Your task to perform on an android device: uninstall "McDonald's" Image 0: 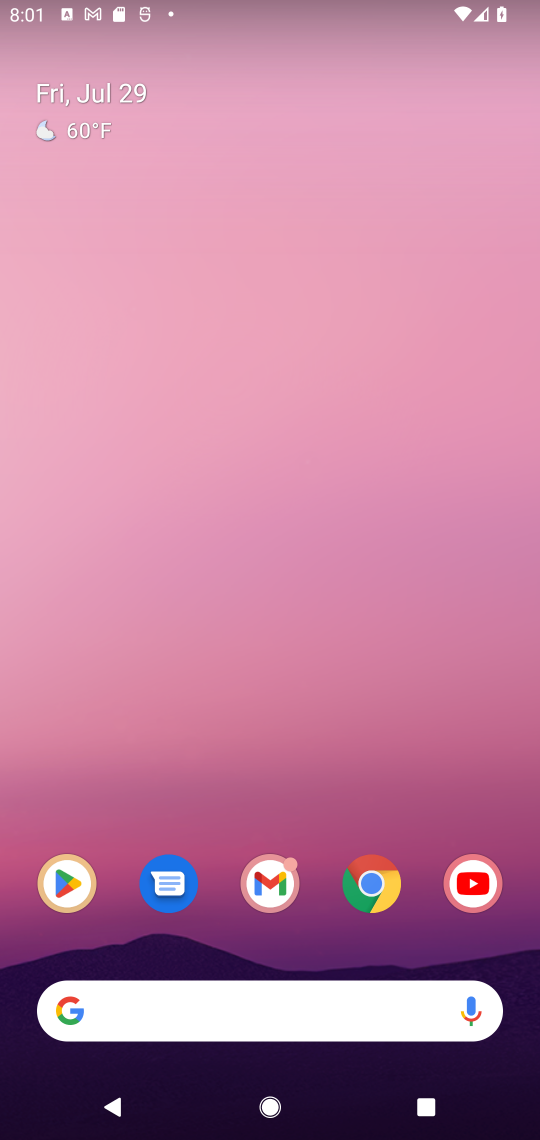
Step 0: click (68, 887)
Your task to perform on an android device: uninstall "McDonald's" Image 1: 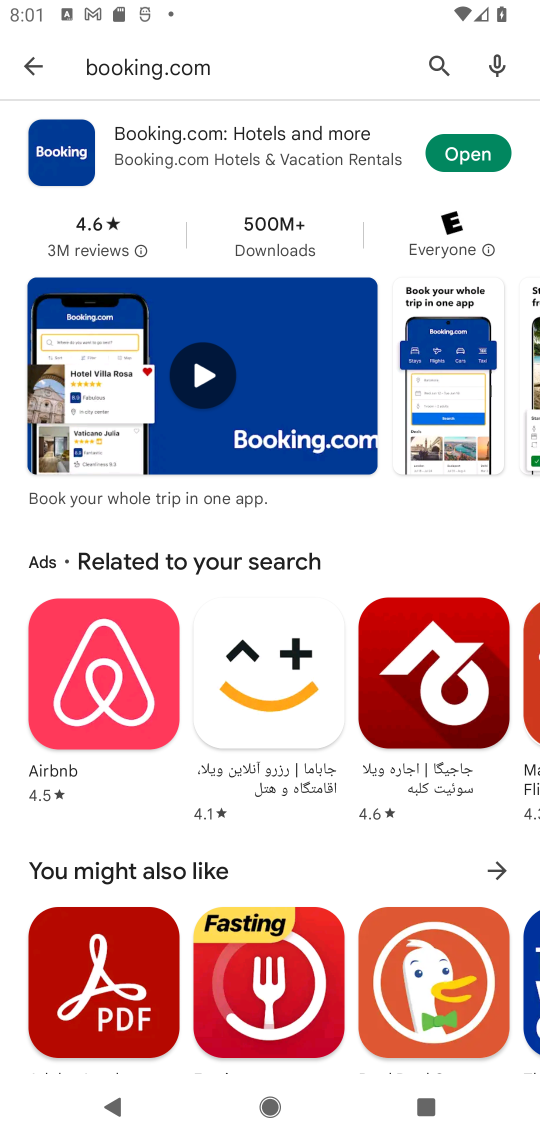
Step 1: click (455, 60)
Your task to perform on an android device: uninstall "McDonald's" Image 2: 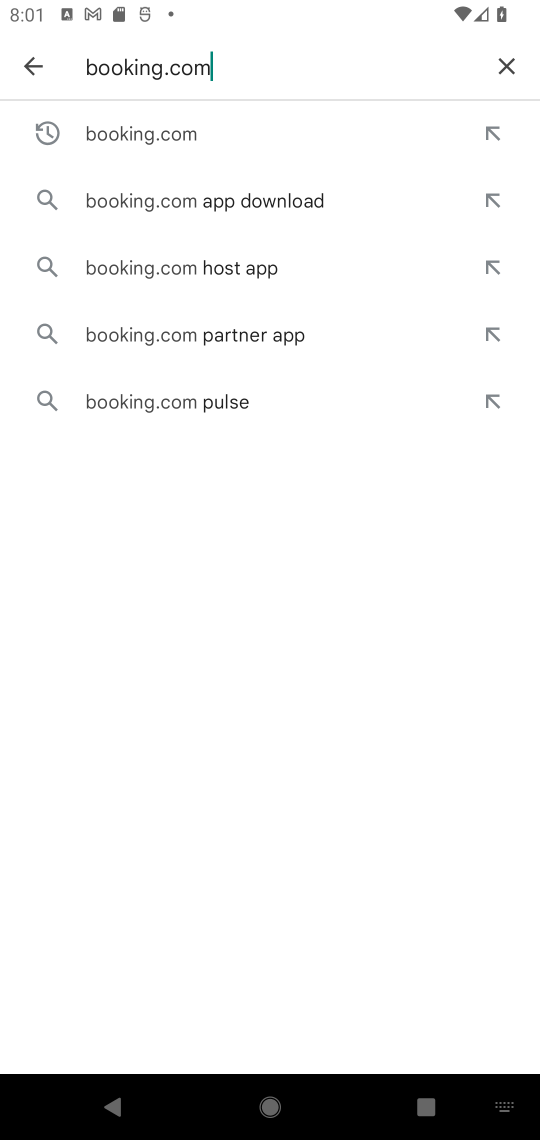
Step 2: click (522, 53)
Your task to perform on an android device: uninstall "McDonald's" Image 3: 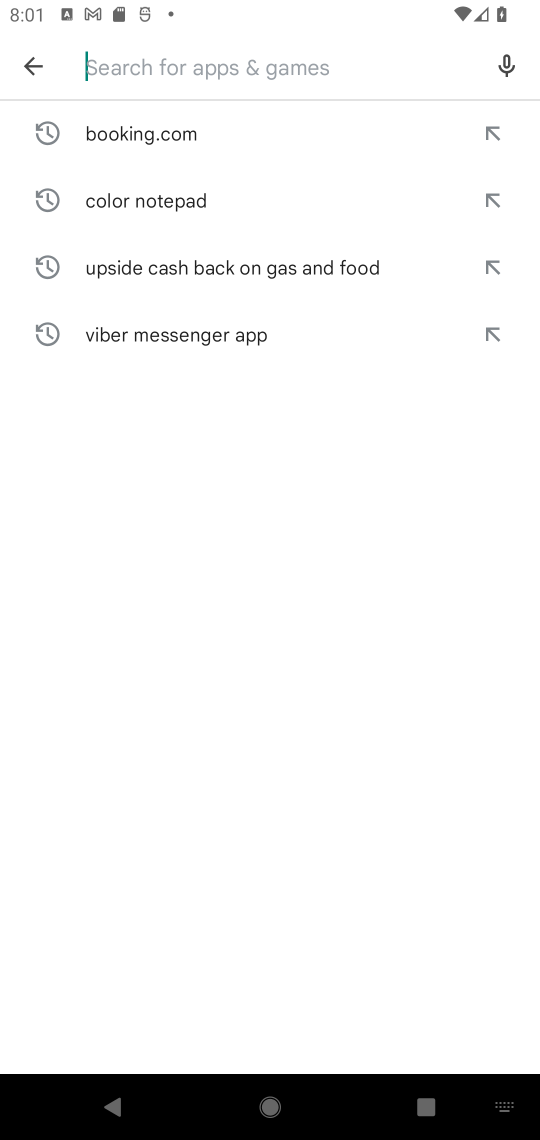
Step 3: click (158, 65)
Your task to perform on an android device: uninstall "McDonald's" Image 4: 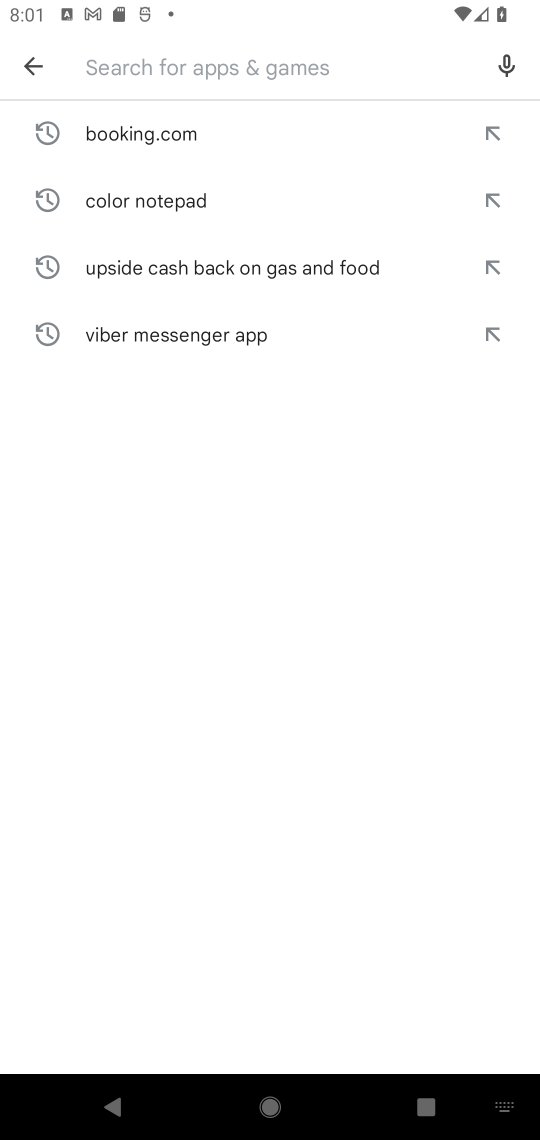
Step 4: type "macdonald"
Your task to perform on an android device: uninstall "McDonald's" Image 5: 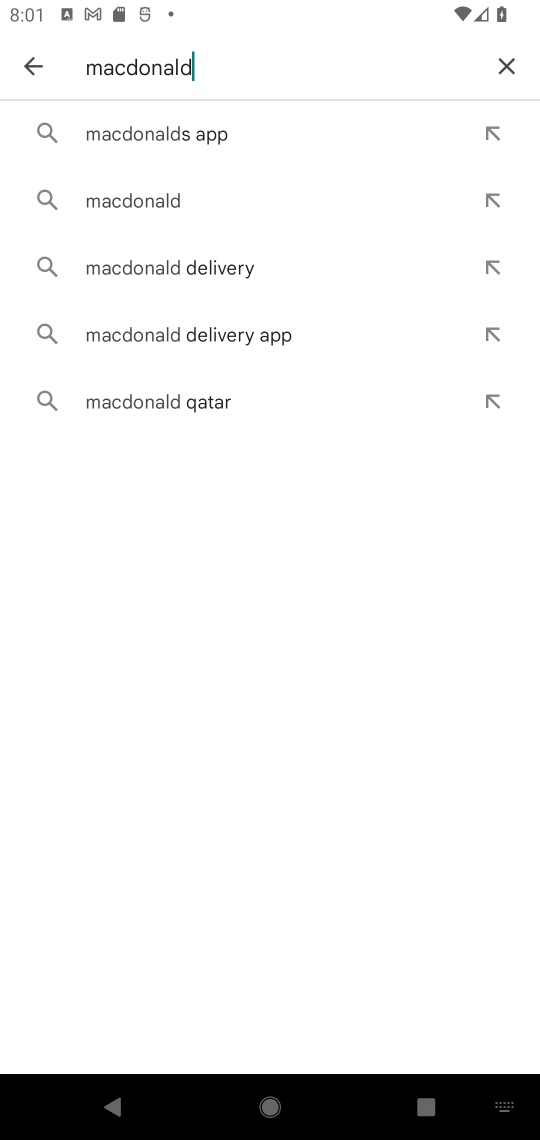
Step 5: click (249, 146)
Your task to perform on an android device: uninstall "McDonald's" Image 6: 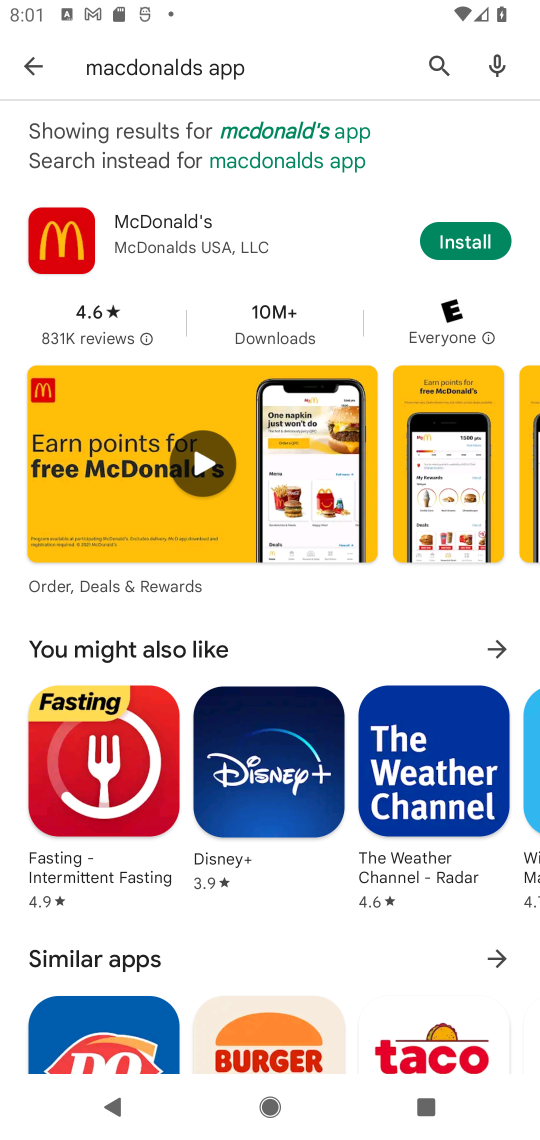
Step 6: task complete